Your task to perform on an android device: set default search engine in the chrome app Image 0: 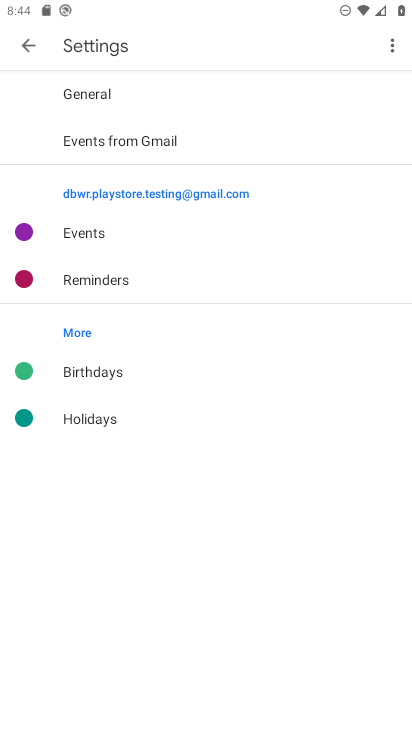
Step 0: press home button
Your task to perform on an android device: set default search engine in the chrome app Image 1: 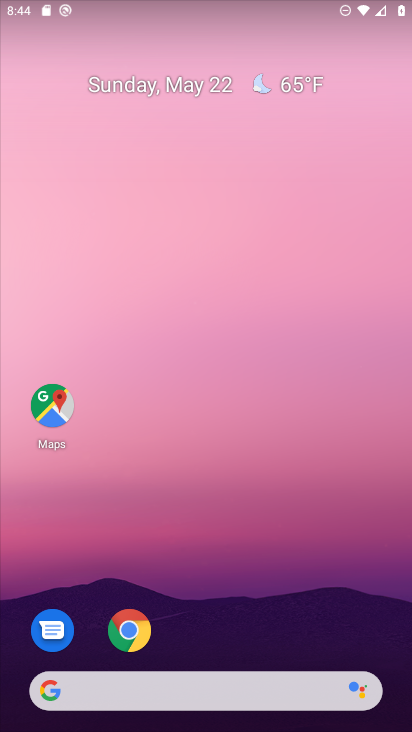
Step 1: click (132, 632)
Your task to perform on an android device: set default search engine in the chrome app Image 2: 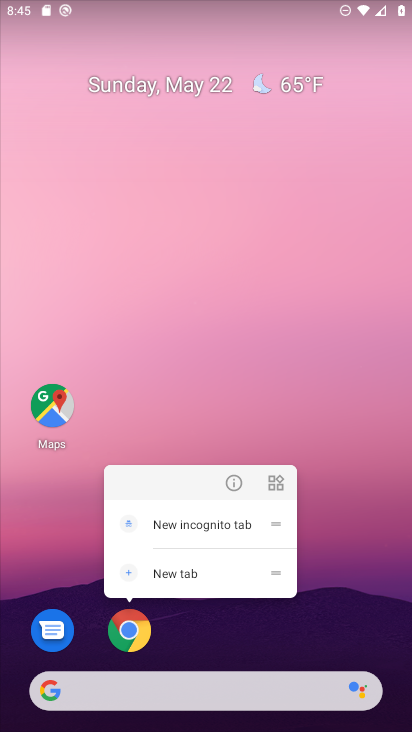
Step 2: click (126, 642)
Your task to perform on an android device: set default search engine in the chrome app Image 3: 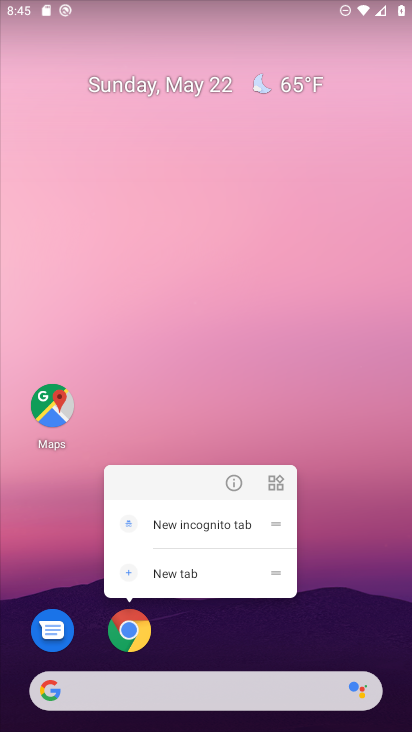
Step 3: click (131, 636)
Your task to perform on an android device: set default search engine in the chrome app Image 4: 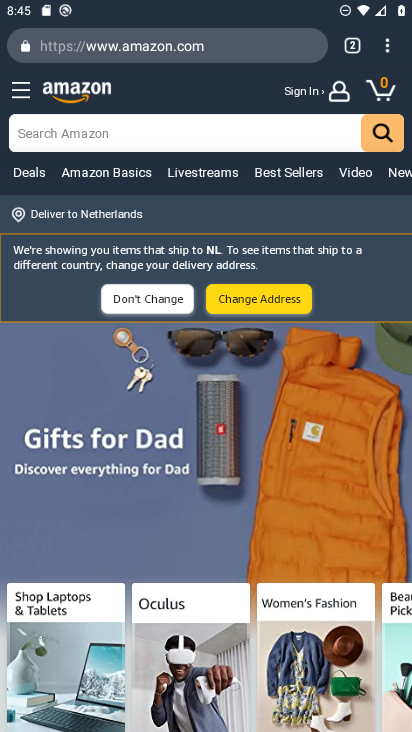
Step 4: drag from (388, 53) to (258, 551)
Your task to perform on an android device: set default search engine in the chrome app Image 5: 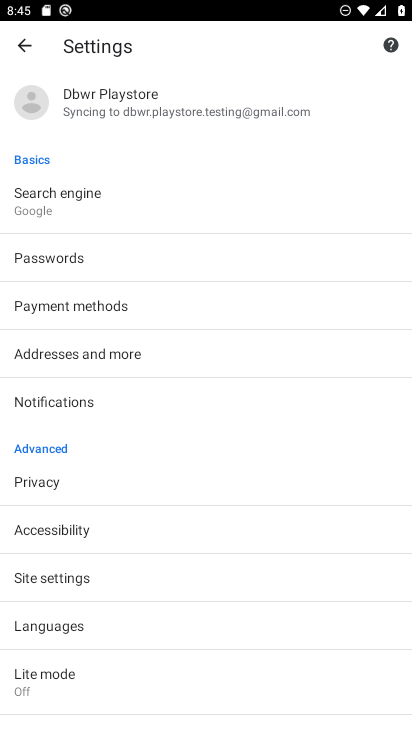
Step 5: click (58, 204)
Your task to perform on an android device: set default search engine in the chrome app Image 6: 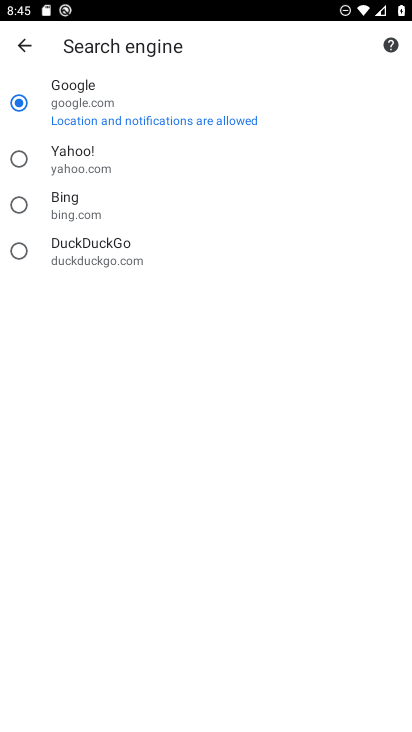
Step 6: click (22, 161)
Your task to perform on an android device: set default search engine in the chrome app Image 7: 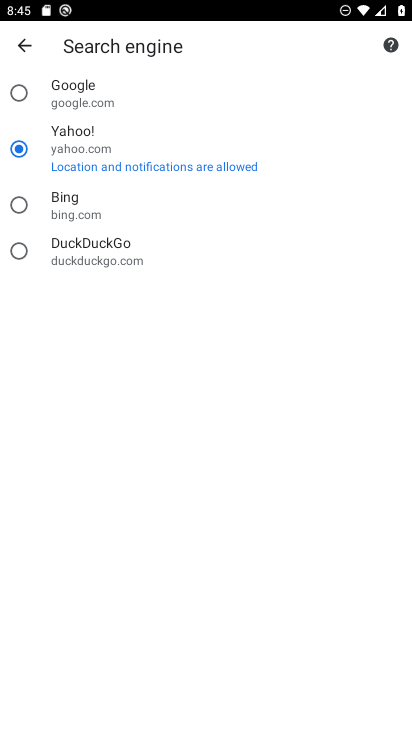
Step 7: task complete